Your task to perform on an android device: turn on translation in the chrome app Image 0: 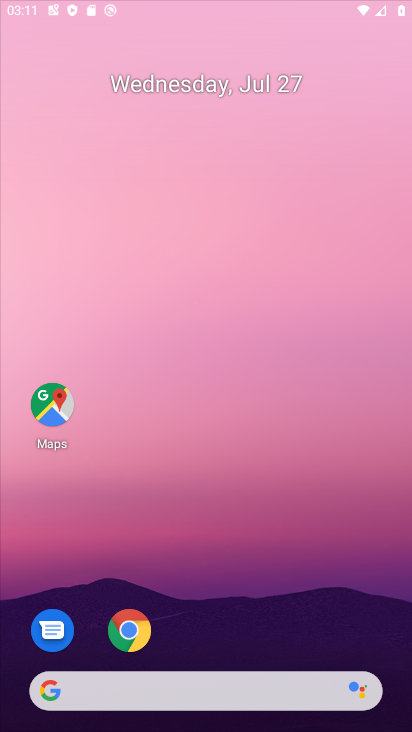
Step 0: click (152, 261)
Your task to perform on an android device: turn on translation in the chrome app Image 1: 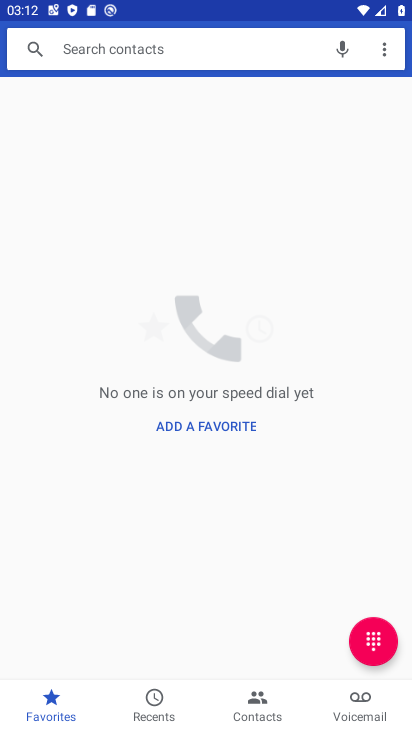
Step 1: drag from (190, 565) to (153, 144)
Your task to perform on an android device: turn on translation in the chrome app Image 2: 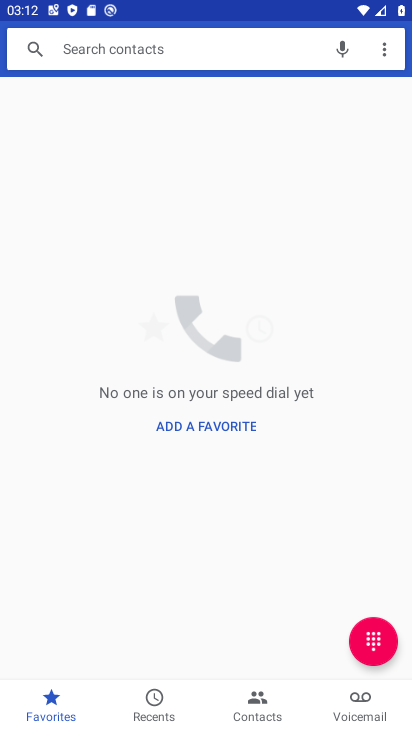
Step 2: press back button
Your task to perform on an android device: turn on translation in the chrome app Image 3: 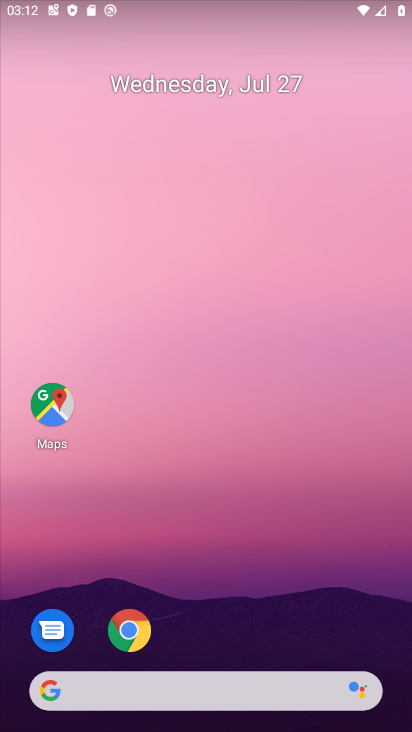
Step 3: click (197, 237)
Your task to perform on an android device: turn on translation in the chrome app Image 4: 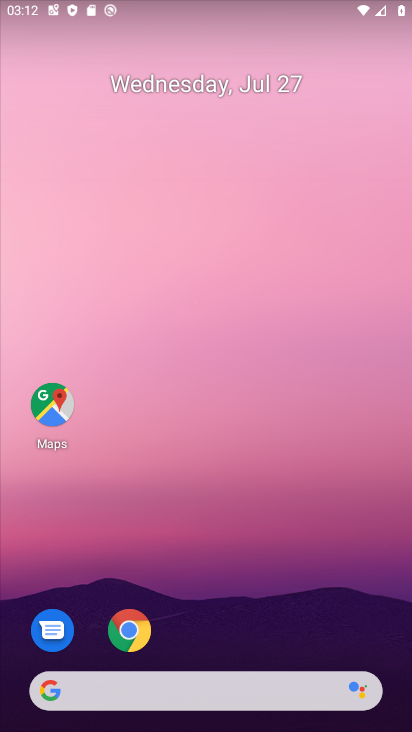
Step 4: drag from (250, 551) to (204, 199)
Your task to perform on an android device: turn on translation in the chrome app Image 5: 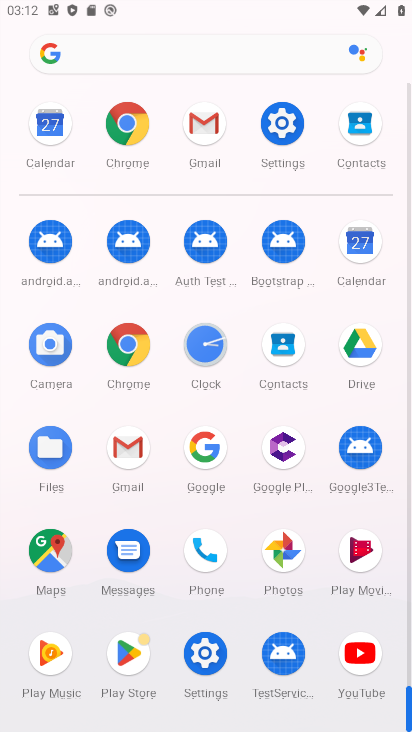
Step 5: drag from (271, 590) to (246, 279)
Your task to perform on an android device: turn on translation in the chrome app Image 6: 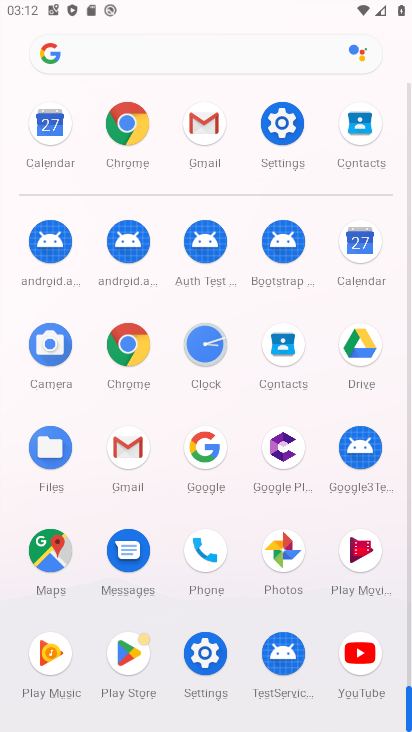
Step 6: click (136, 124)
Your task to perform on an android device: turn on translation in the chrome app Image 7: 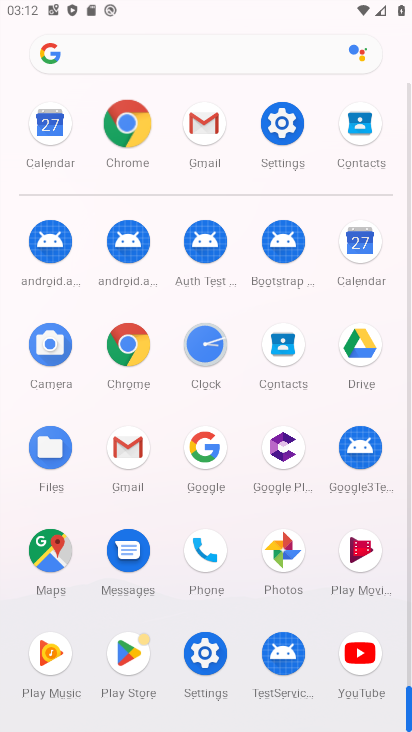
Step 7: click (127, 151)
Your task to perform on an android device: turn on translation in the chrome app Image 8: 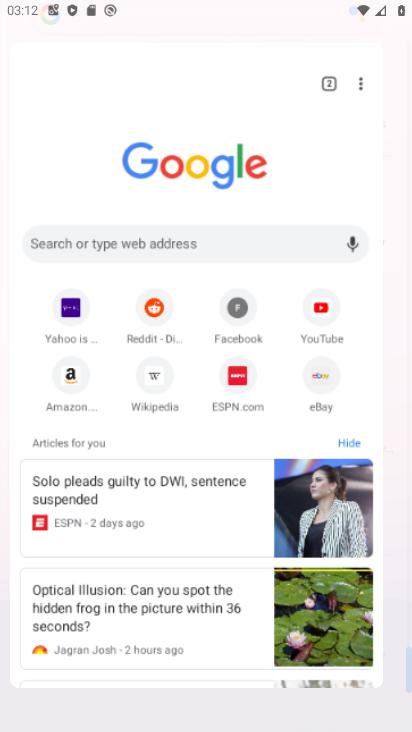
Step 8: click (127, 151)
Your task to perform on an android device: turn on translation in the chrome app Image 9: 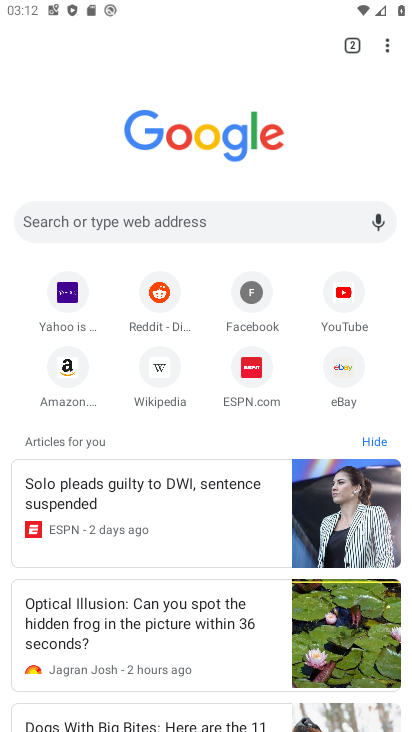
Step 9: drag from (377, 57) to (223, 384)
Your task to perform on an android device: turn on translation in the chrome app Image 10: 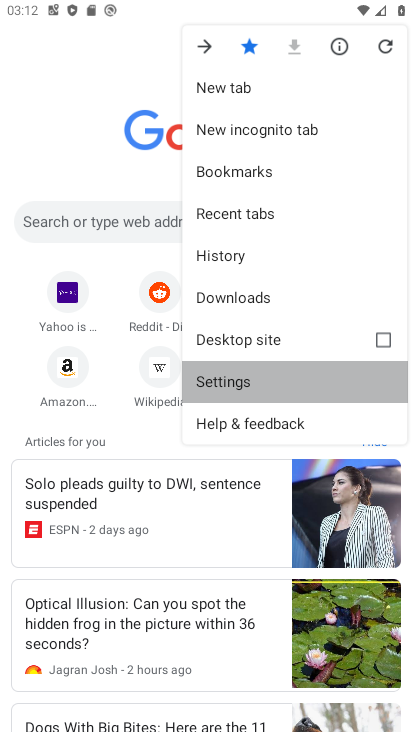
Step 10: click (217, 384)
Your task to perform on an android device: turn on translation in the chrome app Image 11: 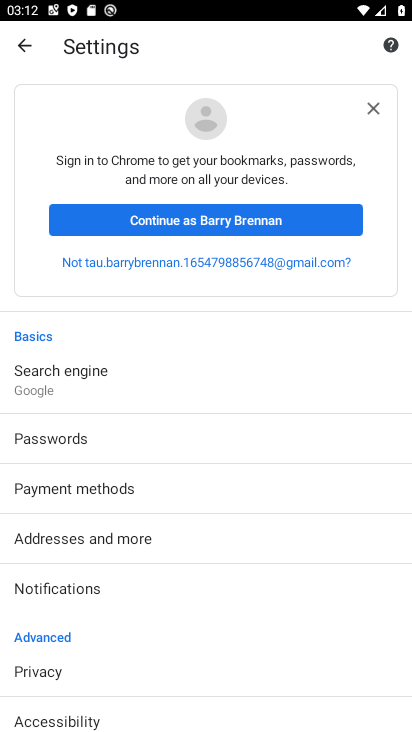
Step 11: drag from (47, 485) to (48, 262)
Your task to perform on an android device: turn on translation in the chrome app Image 12: 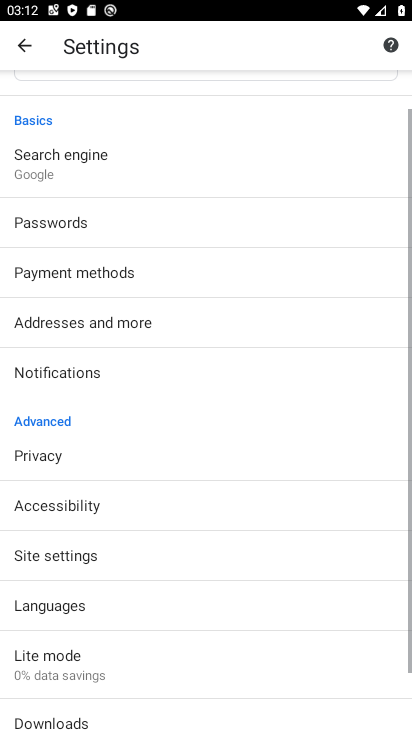
Step 12: drag from (65, 640) to (48, 439)
Your task to perform on an android device: turn on translation in the chrome app Image 13: 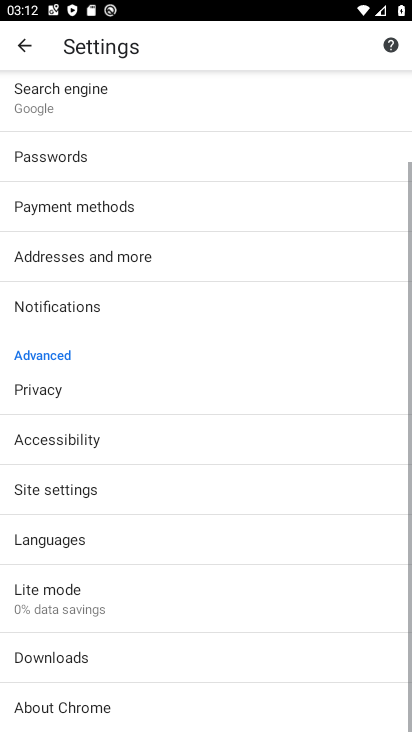
Step 13: drag from (107, 646) to (81, 506)
Your task to perform on an android device: turn on translation in the chrome app Image 14: 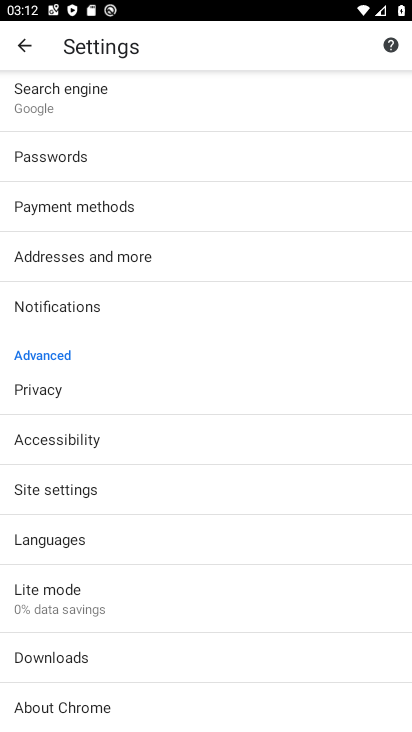
Step 14: click (58, 542)
Your task to perform on an android device: turn on translation in the chrome app Image 15: 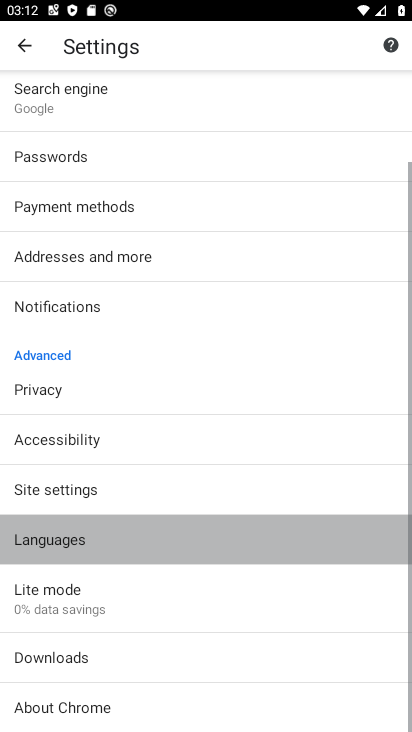
Step 15: click (65, 537)
Your task to perform on an android device: turn on translation in the chrome app Image 16: 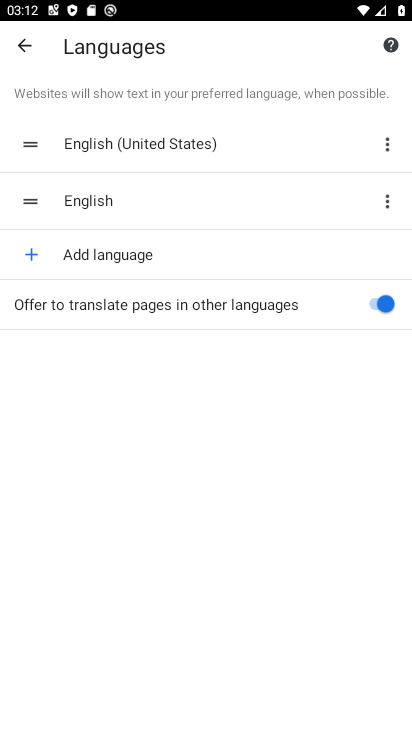
Step 16: task complete